Your task to perform on an android device: What is the recent news? Image 0: 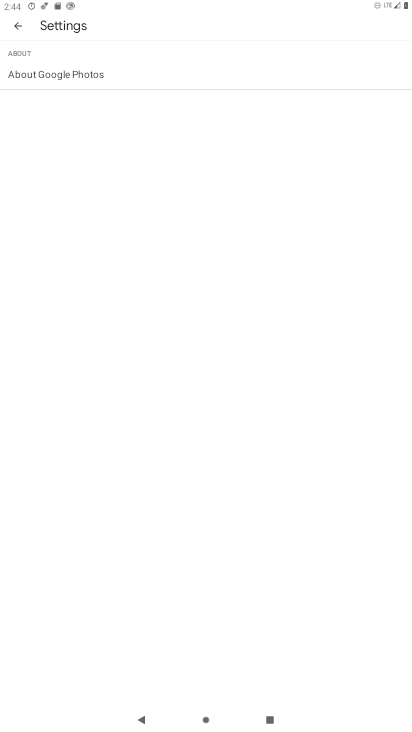
Step 0: press home button
Your task to perform on an android device: What is the recent news? Image 1: 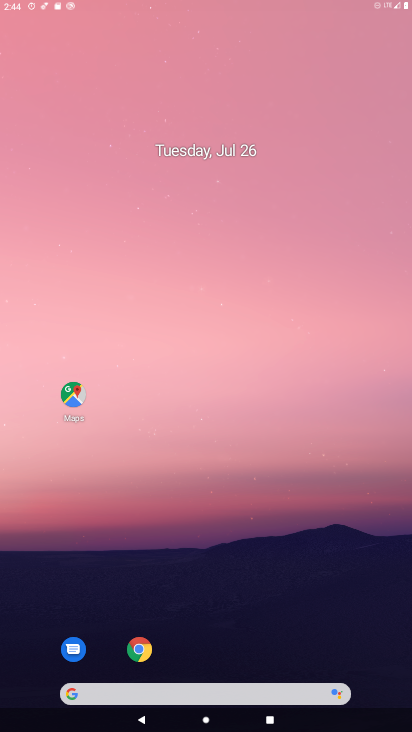
Step 1: drag from (384, 677) to (190, 12)
Your task to perform on an android device: What is the recent news? Image 2: 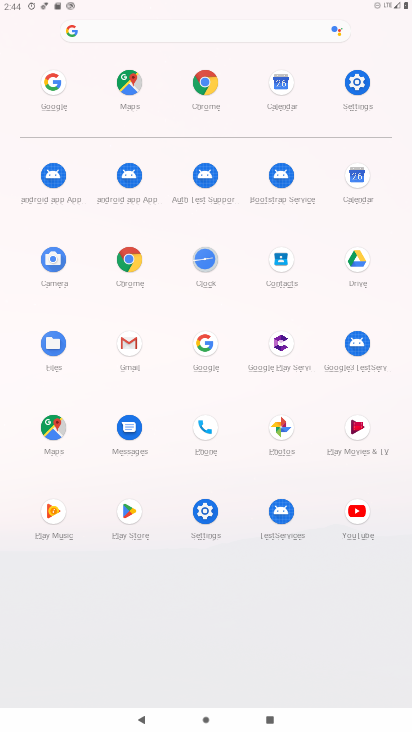
Step 2: click (206, 336)
Your task to perform on an android device: What is the recent news? Image 3: 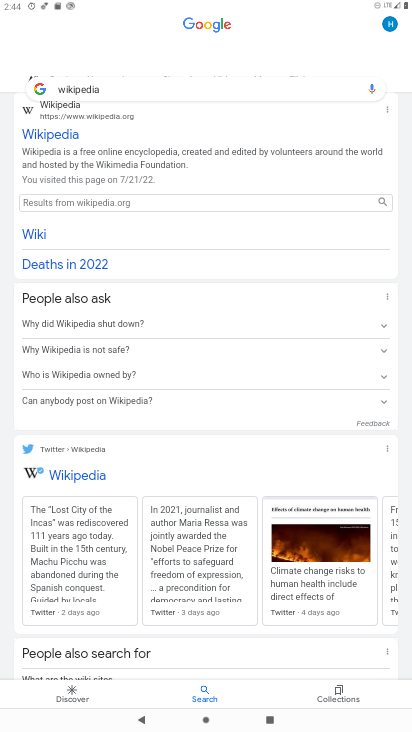
Step 3: press back button
Your task to perform on an android device: What is the recent news? Image 4: 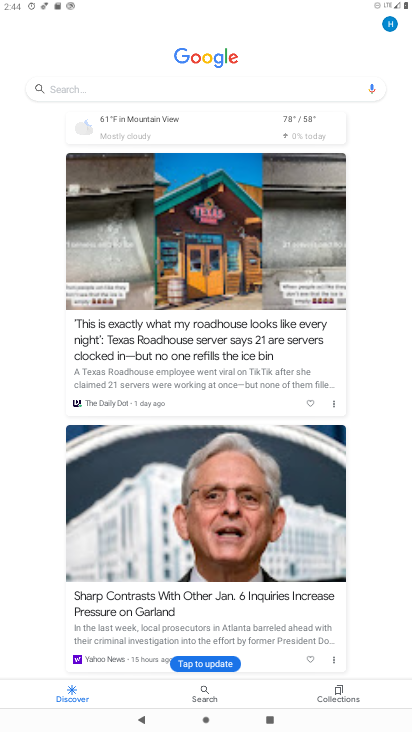
Step 4: click (101, 82)
Your task to perform on an android device: What is the recent news? Image 5: 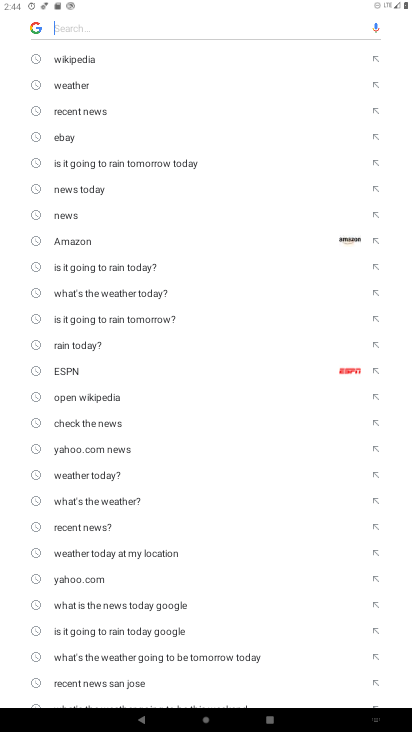
Step 5: drag from (138, 680) to (160, 386)
Your task to perform on an android device: What is the recent news? Image 6: 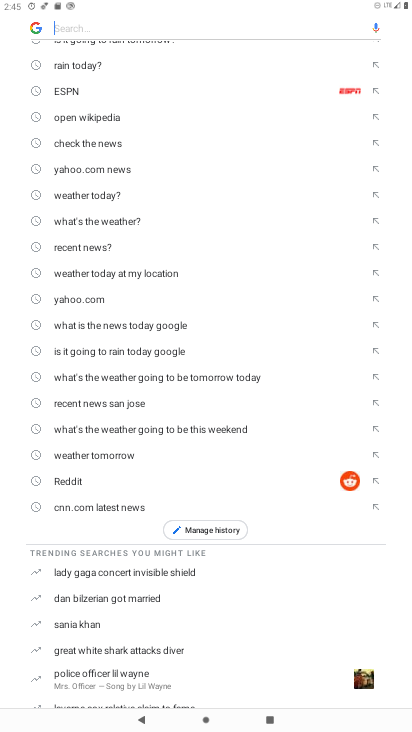
Step 6: type "What is the recent news?"
Your task to perform on an android device: What is the recent news? Image 7: 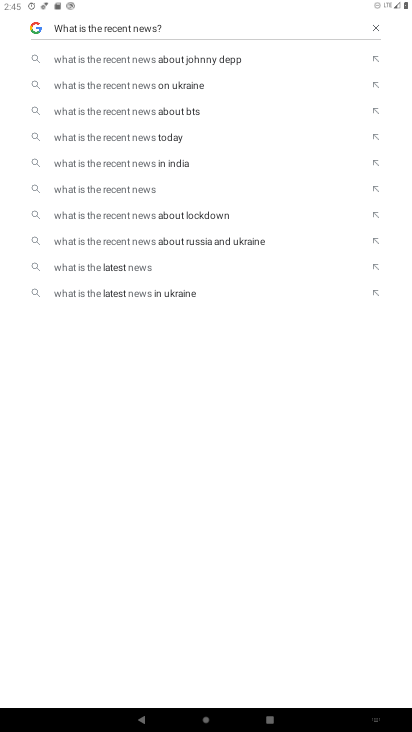
Step 7: click (113, 137)
Your task to perform on an android device: What is the recent news? Image 8: 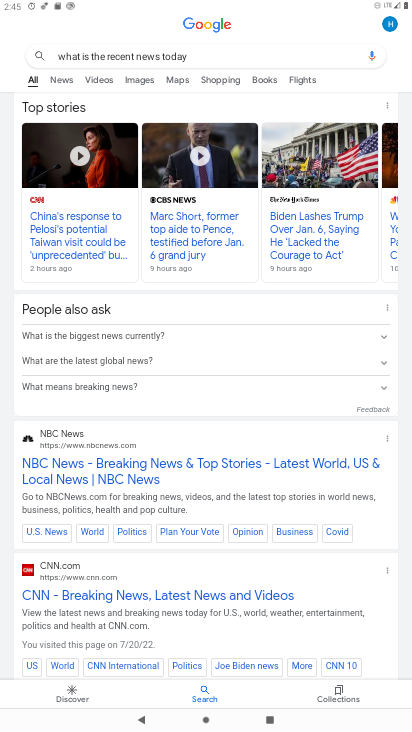
Step 8: task complete